Your task to perform on an android device: Go to Android settings Image 0: 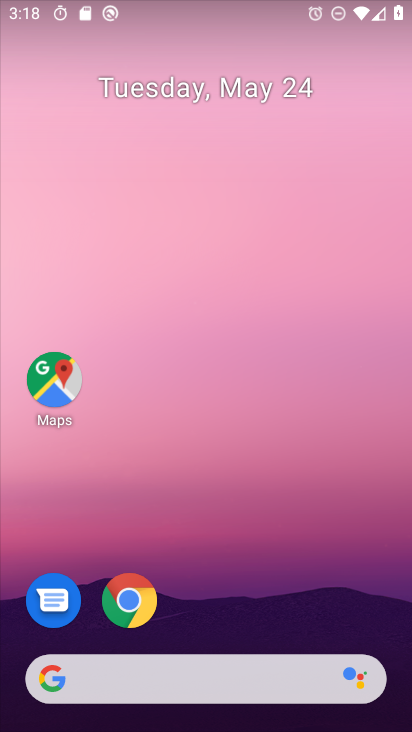
Step 0: drag from (282, 536) to (177, 80)
Your task to perform on an android device: Go to Android settings Image 1: 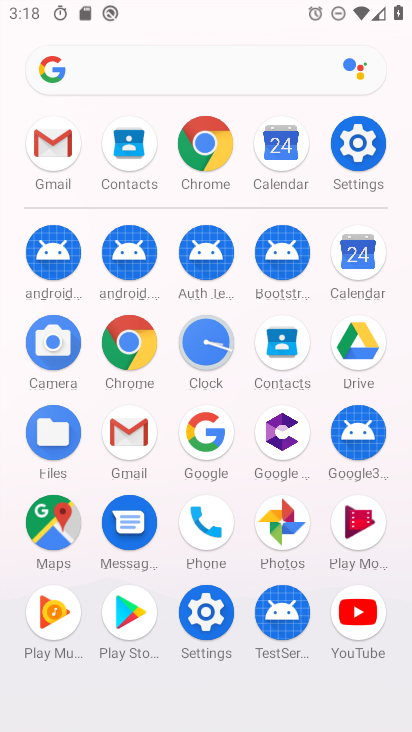
Step 1: click (343, 151)
Your task to perform on an android device: Go to Android settings Image 2: 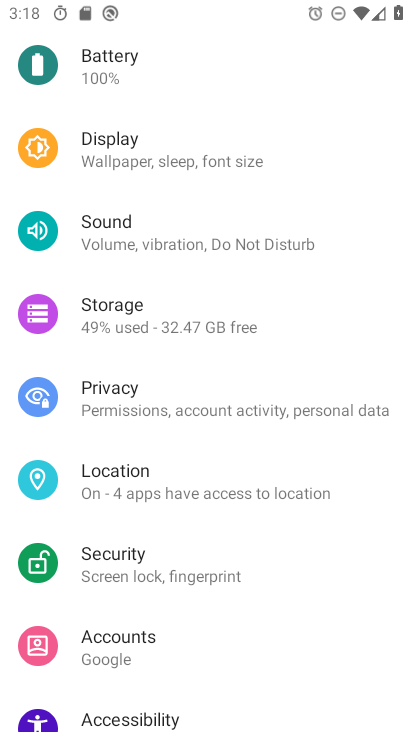
Step 2: task complete